Your task to perform on an android device: turn off location Image 0: 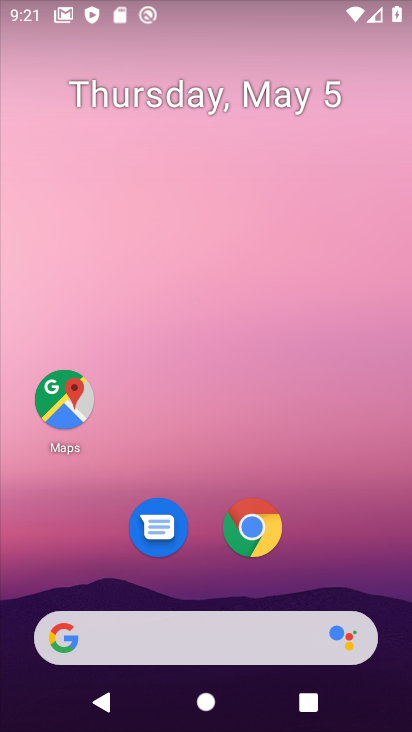
Step 0: drag from (239, 545) to (285, 111)
Your task to perform on an android device: turn off location Image 1: 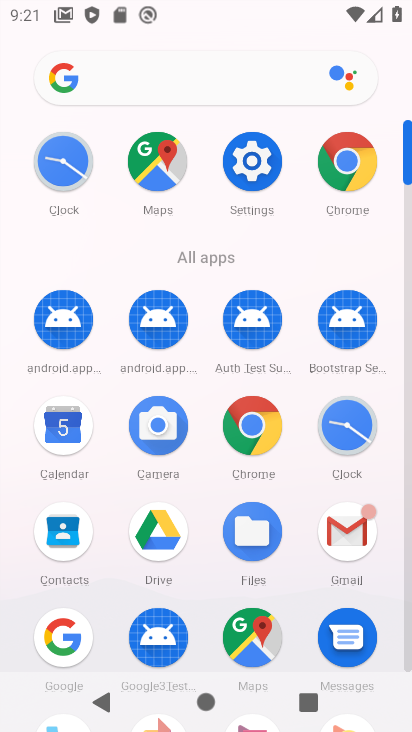
Step 1: click (246, 161)
Your task to perform on an android device: turn off location Image 2: 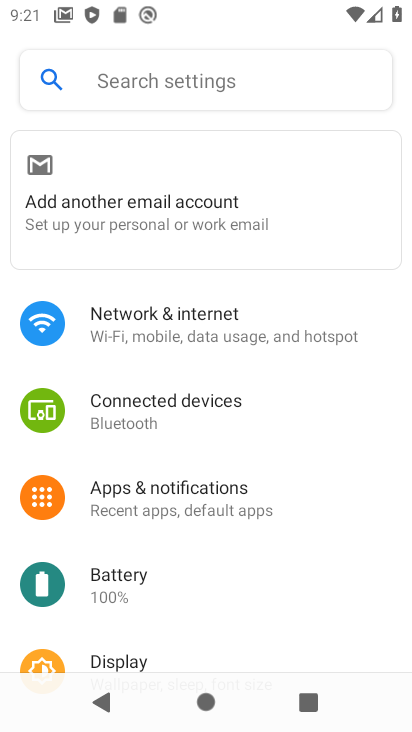
Step 2: drag from (255, 569) to (290, 128)
Your task to perform on an android device: turn off location Image 3: 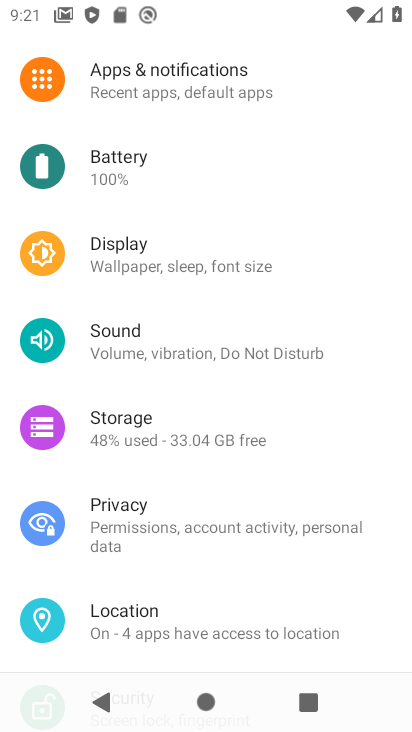
Step 3: click (176, 626)
Your task to perform on an android device: turn off location Image 4: 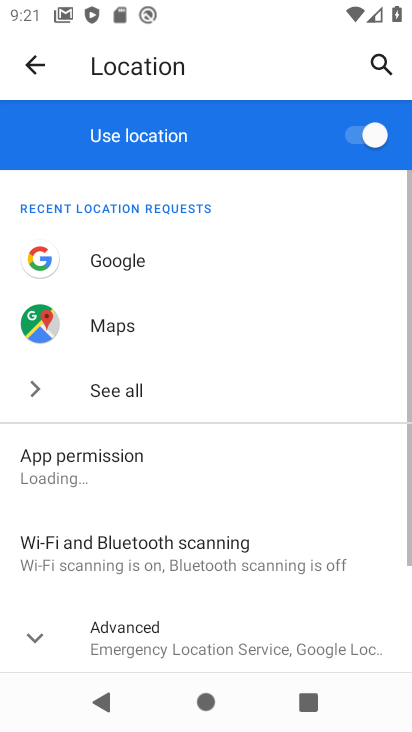
Step 4: click (380, 151)
Your task to perform on an android device: turn off location Image 5: 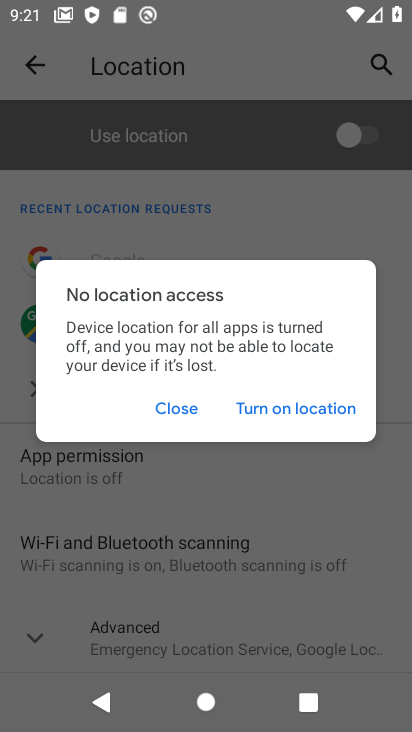
Step 5: task complete